Your task to perform on an android device: Check the weather Image 0: 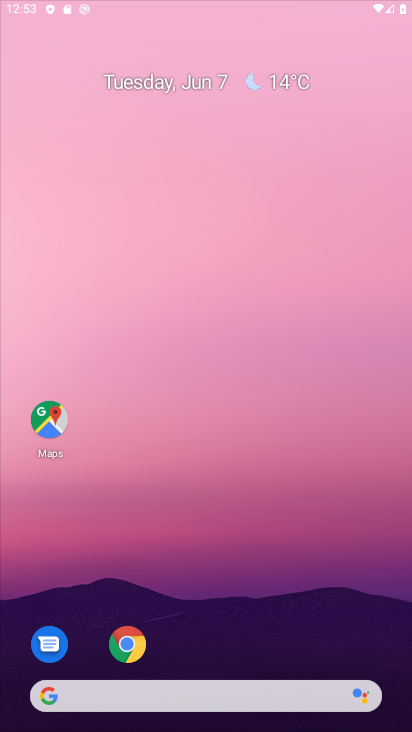
Step 0: click (164, 114)
Your task to perform on an android device: Check the weather Image 1: 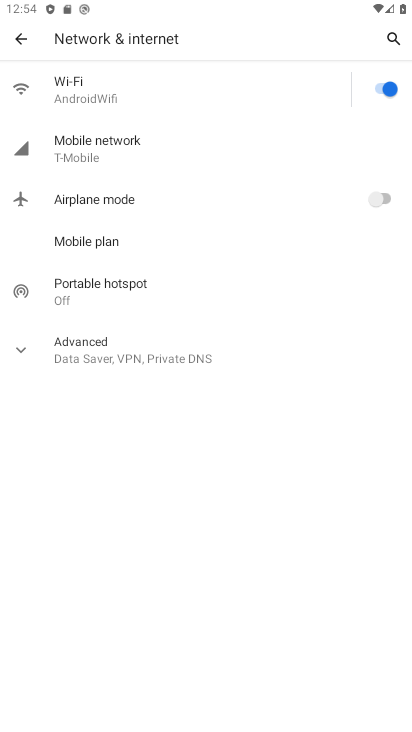
Step 1: press home button
Your task to perform on an android device: Check the weather Image 2: 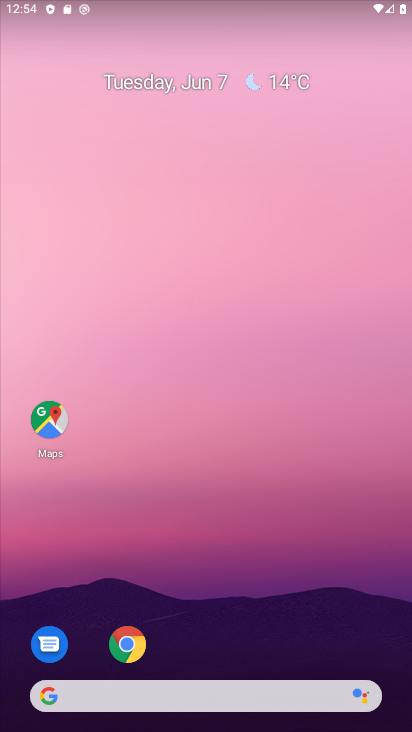
Step 2: click (151, 688)
Your task to perform on an android device: Check the weather Image 3: 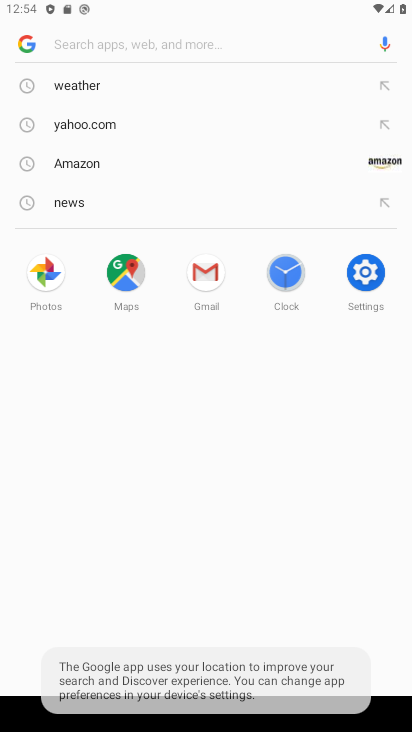
Step 3: click (130, 84)
Your task to perform on an android device: Check the weather Image 4: 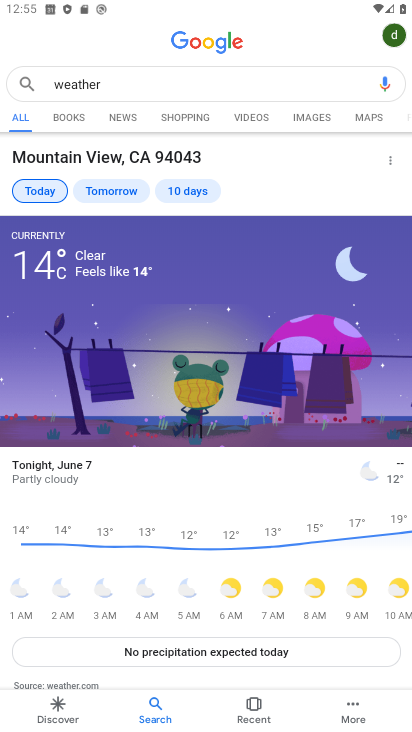
Step 4: task complete